Your task to perform on an android device: Go to calendar. Show me events next week Image 0: 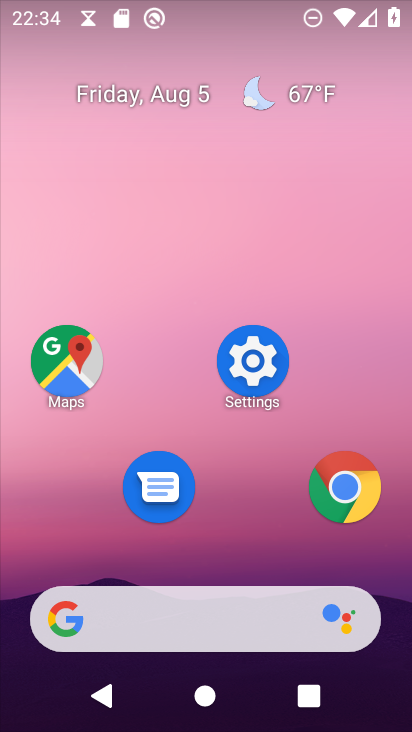
Step 0: drag from (171, 621) to (318, 113)
Your task to perform on an android device: Go to calendar. Show me events next week Image 1: 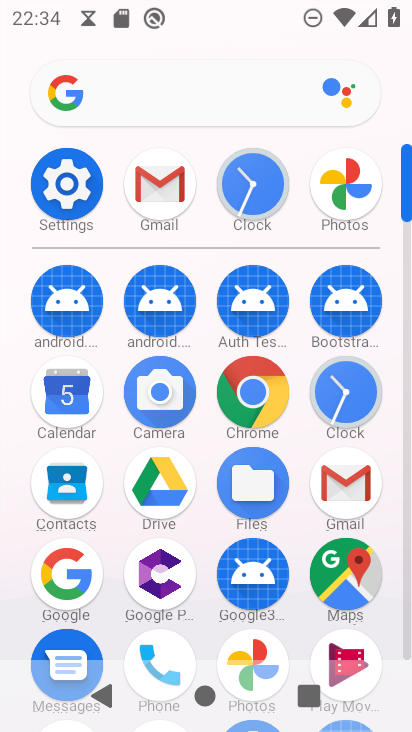
Step 1: click (61, 403)
Your task to perform on an android device: Go to calendar. Show me events next week Image 2: 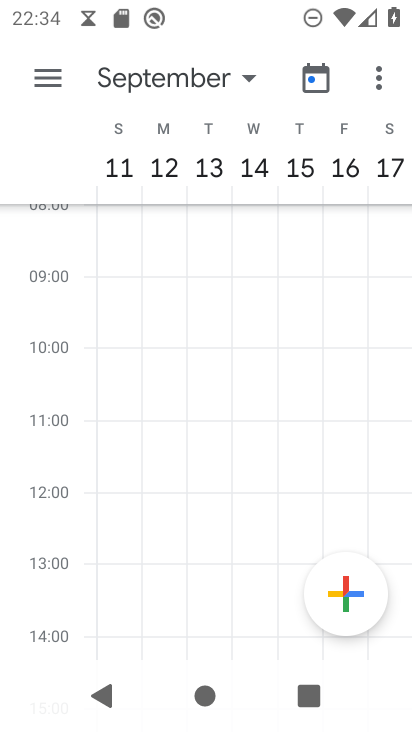
Step 2: click (159, 80)
Your task to perform on an android device: Go to calendar. Show me events next week Image 3: 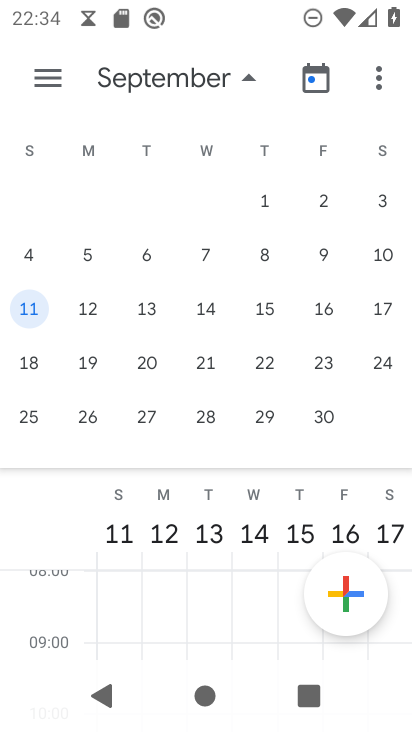
Step 3: drag from (70, 343) to (393, 401)
Your task to perform on an android device: Go to calendar. Show me events next week Image 4: 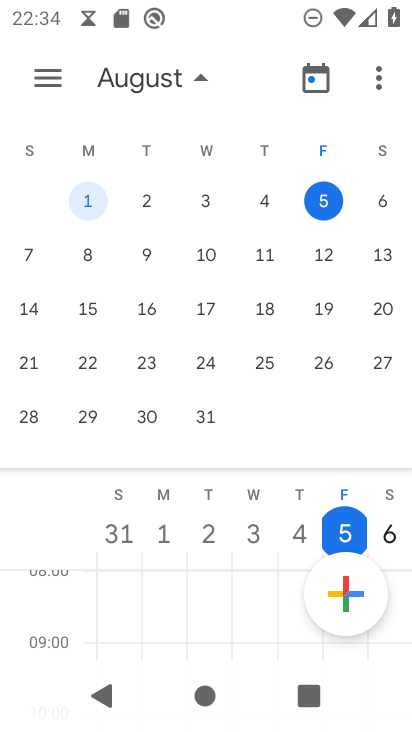
Step 4: drag from (103, 343) to (406, 392)
Your task to perform on an android device: Go to calendar. Show me events next week Image 5: 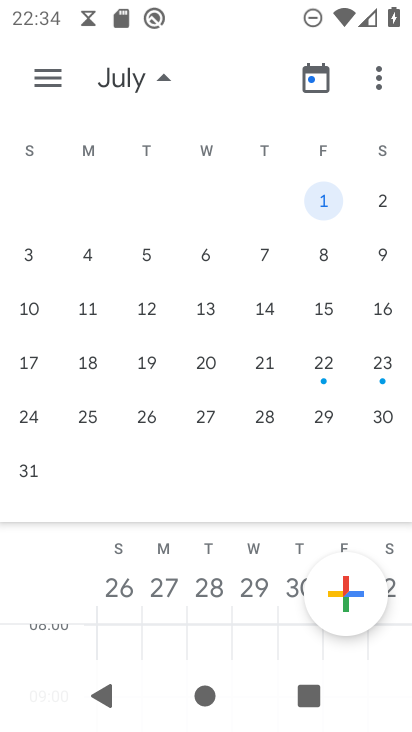
Step 5: drag from (359, 318) to (0, 329)
Your task to perform on an android device: Go to calendar. Show me events next week Image 6: 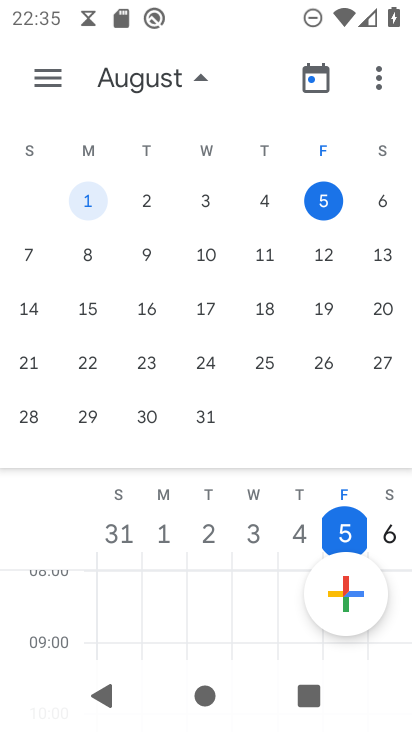
Step 6: click (31, 250)
Your task to perform on an android device: Go to calendar. Show me events next week Image 7: 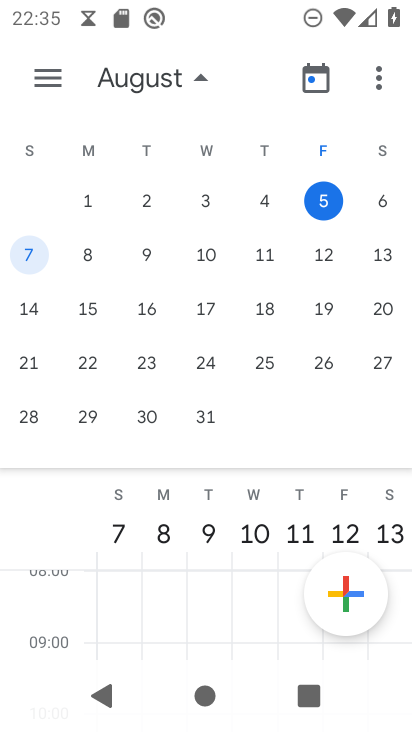
Step 7: click (51, 75)
Your task to perform on an android device: Go to calendar. Show me events next week Image 8: 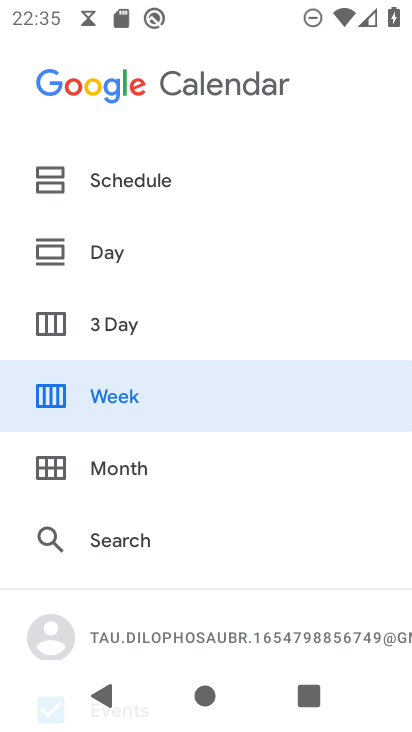
Step 8: click (133, 399)
Your task to perform on an android device: Go to calendar. Show me events next week Image 9: 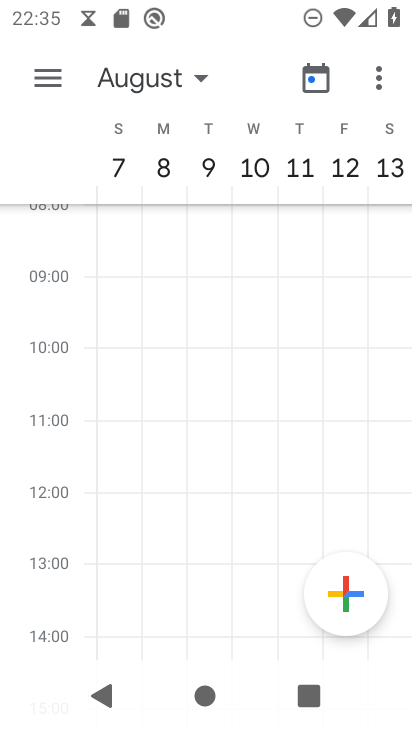
Step 9: click (47, 74)
Your task to perform on an android device: Go to calendar. Show me events next week Image 10: 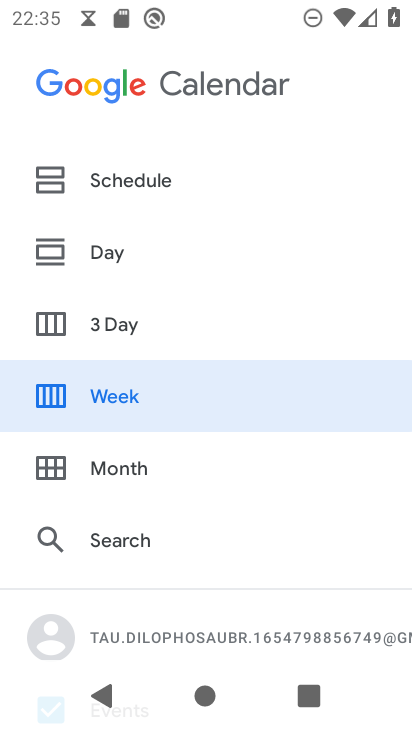
Step 10: click (121, 174)
Your task to perform on an android device: Go to calendar. Show me events next week Image 11: 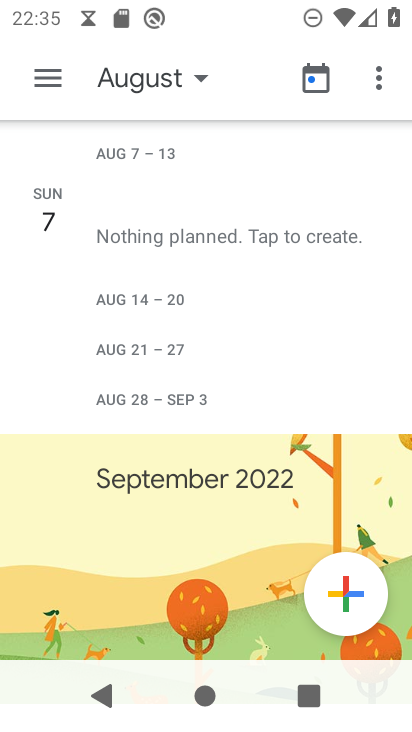
Step 11: task complete